Your task to perform on an android device: change notifications settings Image 0: 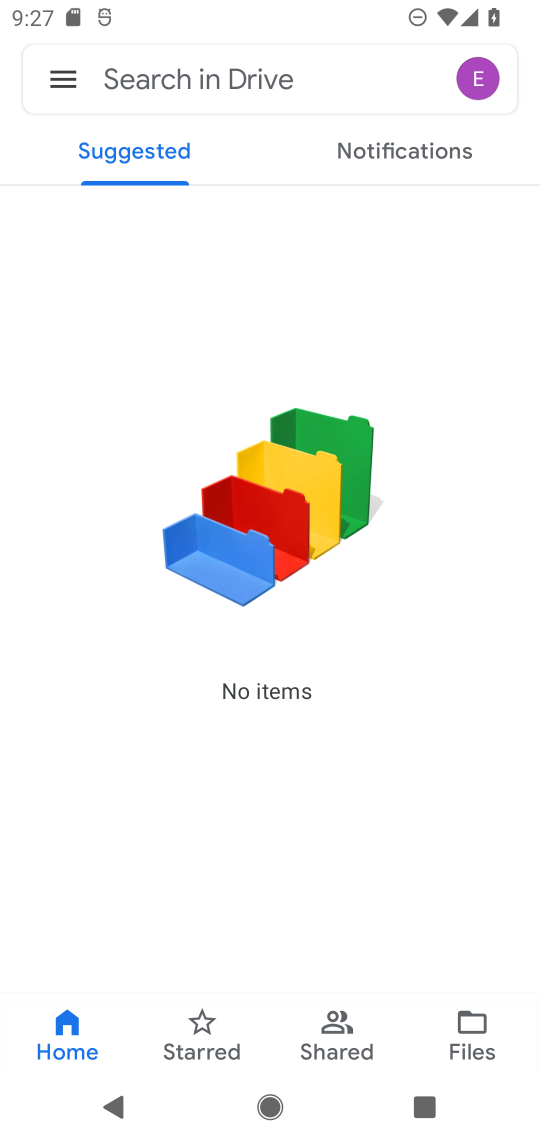
Step 0: press home button
Your task to perform on an android device: change notifications settings Image 1: 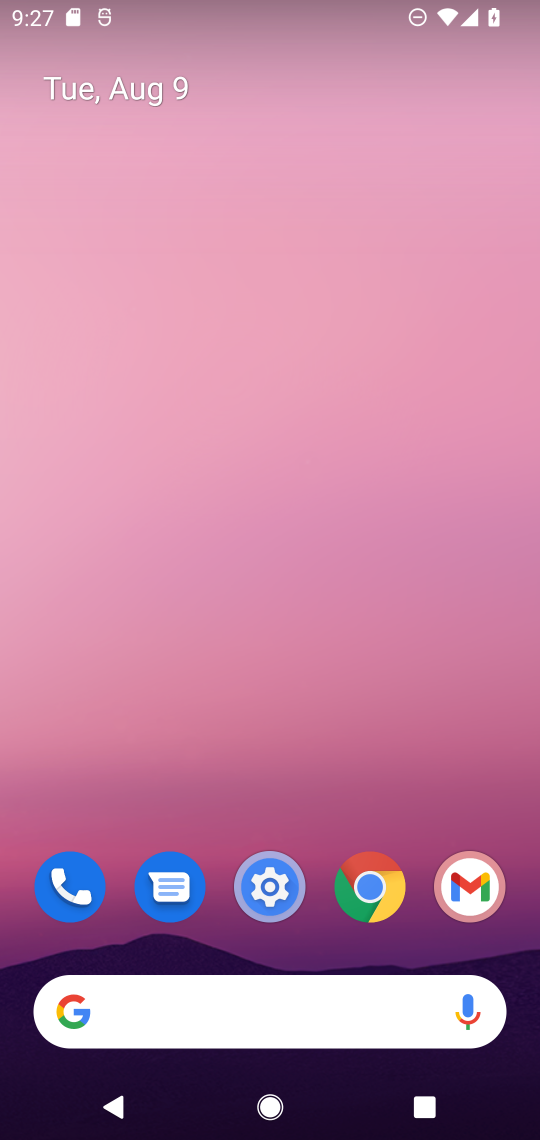
Step 1: click (288, 876)
Your task to perform on an android device: change notifications settings Image 2: 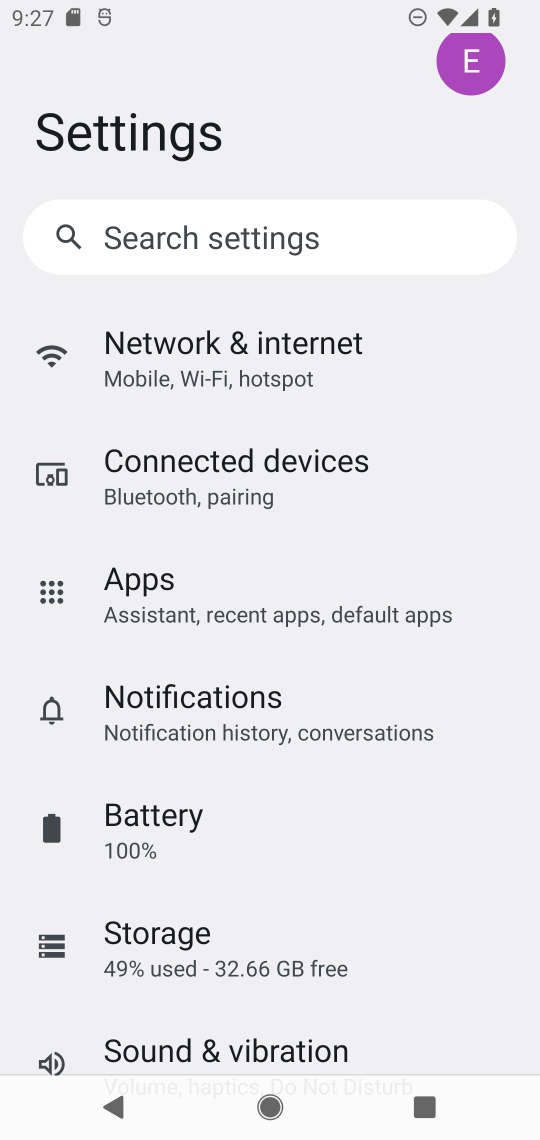
Step 2: click (280, 690)
Your task to perform on an android device: change notifications settings Image 3: 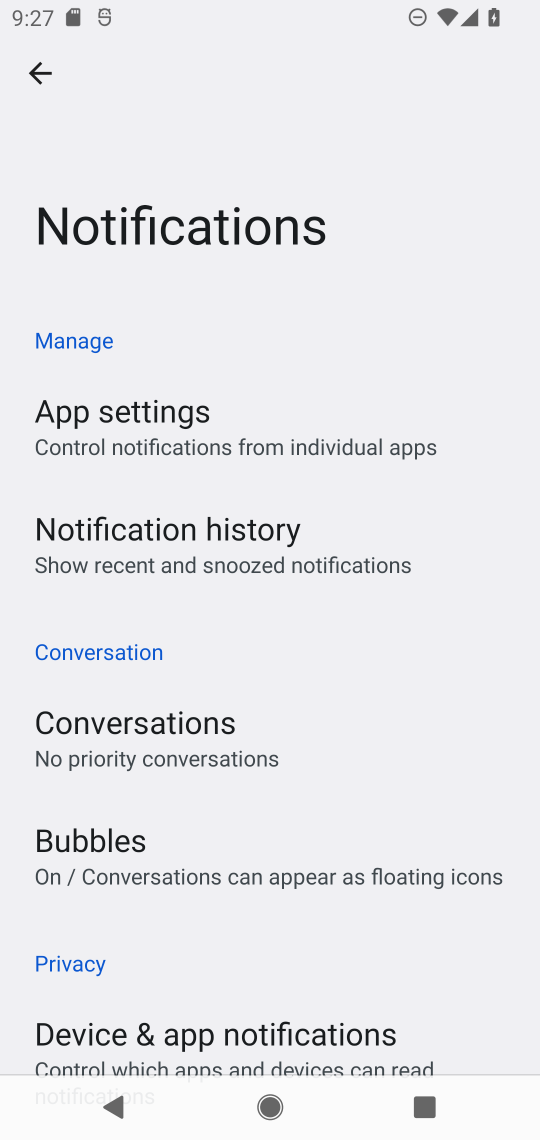
Step 3: task complete